Your task to perform on an android device: Open Google Chrome and click the shortcut for Amazon.com Image 0: 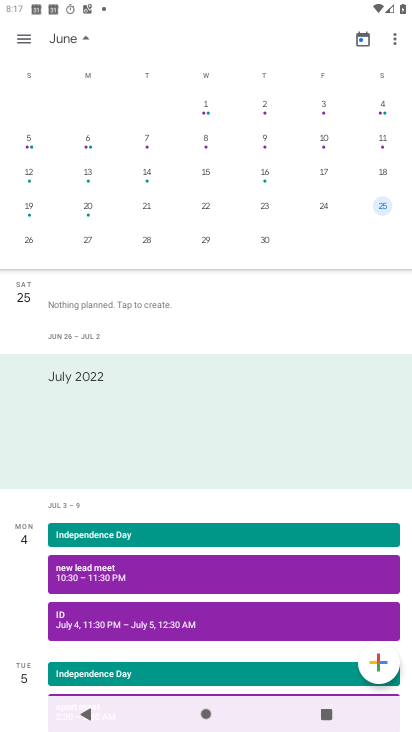
Step 0: press home button
Your task to perform on an android device: Open Google Chrome and click the shortcut for Amazon.com Image 1: 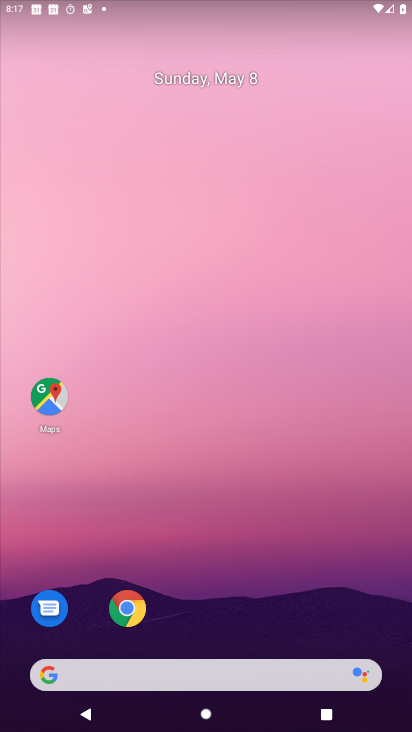
Step 1: click (130, 612)
Your task to perform on an android device: Open Google Chrome and click the shortcut for Amazon.com Image 2: 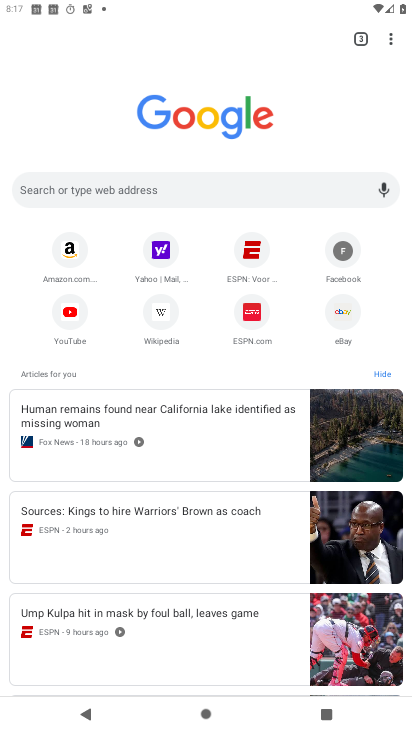
Step 2: click (64, 254)
Your task to perform on an android device: Open Google Chrome and click the shortcut for Amazon.com Image 3: 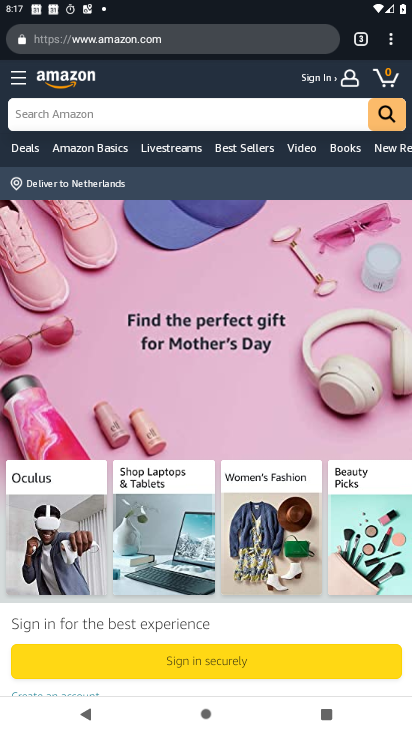
Step 3: task complete